Your task to perform on an android device: turn off location Image 0: 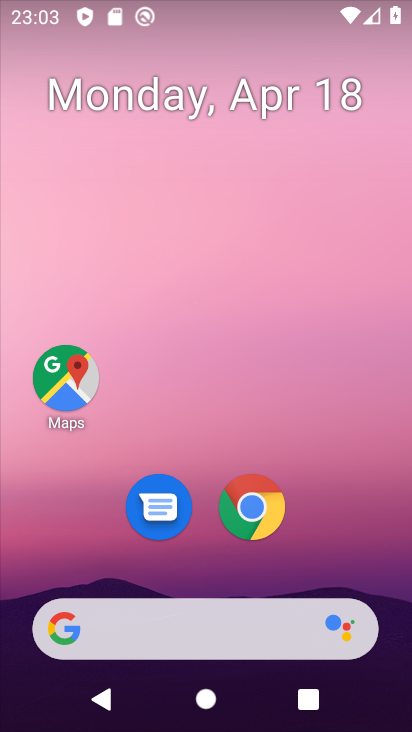
Step 0: drag from (340, 539) to (382, 72)
Your task to perform on an android device: turn off location Image 1: 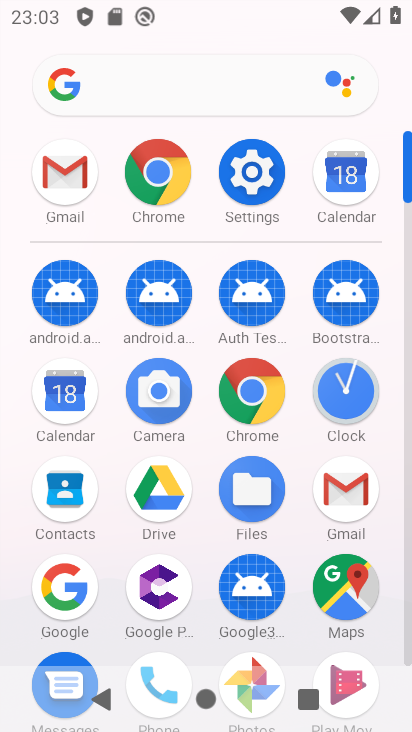
Step 1: click (257, 183)
Your task to perform on an android device: turn off location Image 2: 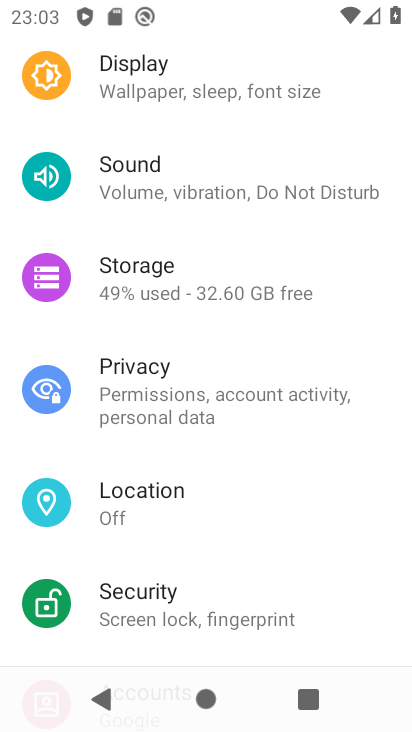
Step 2: click (195, 506)
Your task to perform on an android device: turn off location Image 3: 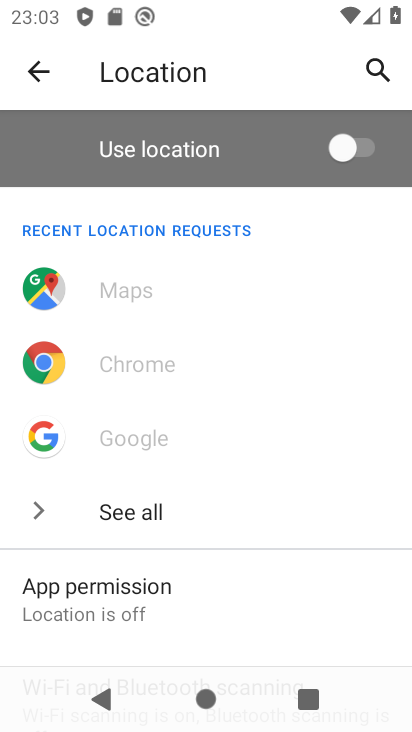
Step 3: task complete